Your task to perform on an android device: Open eBay Image 0: 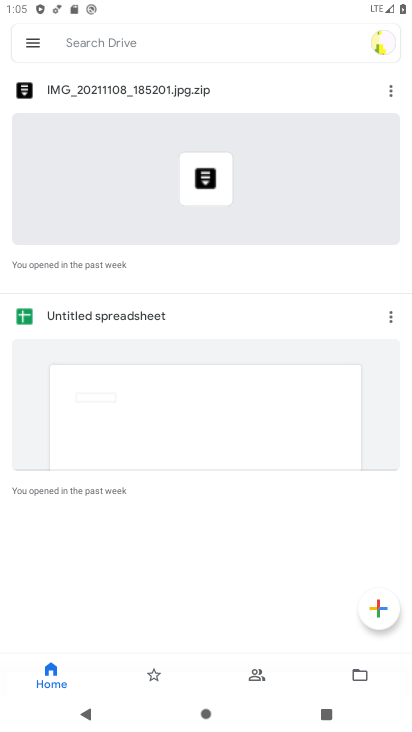
Step 0: press home button
Your task to perform on an android device: Open eBay Image 1: 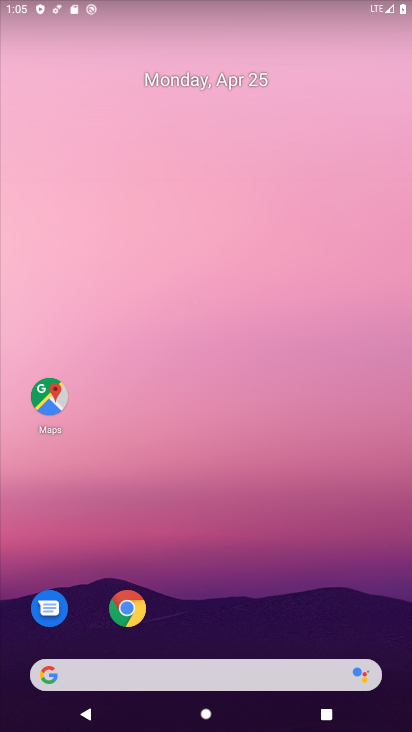
Step 1: drag from (278, 595) to (378, 118)
Your task to perform on an android device: Open eBay Image 2: 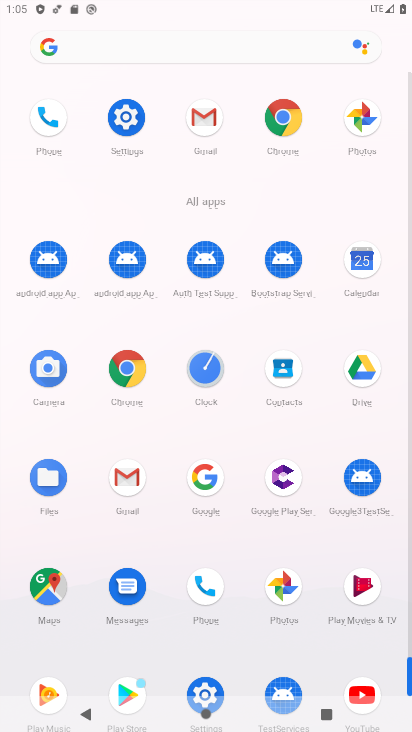
Step 2: click (265, 118)
Your task to perform on an android device: Open eBay Image 3: 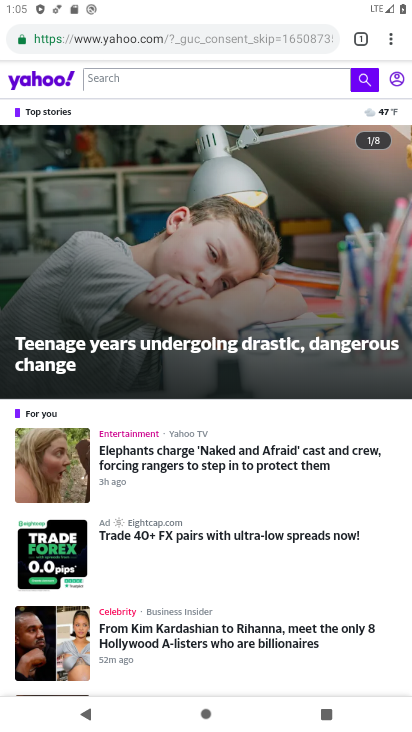
Step 3: click (359, 39)
Your task to perform on an android device: Open eBay Image 4: 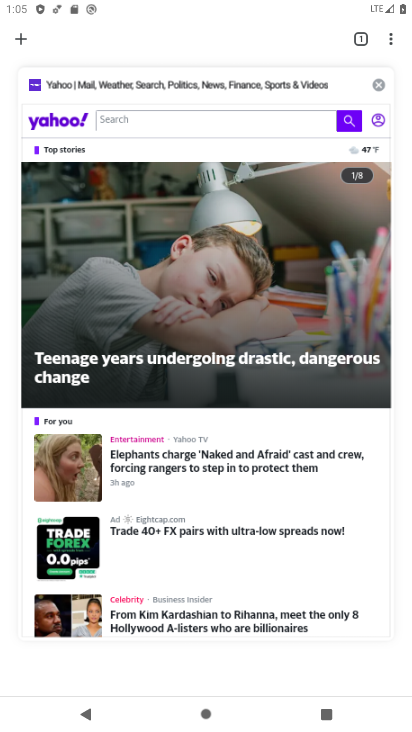
Step 4: click (28, 36)
Your task to perform on an android device: Open eBay Image 5: 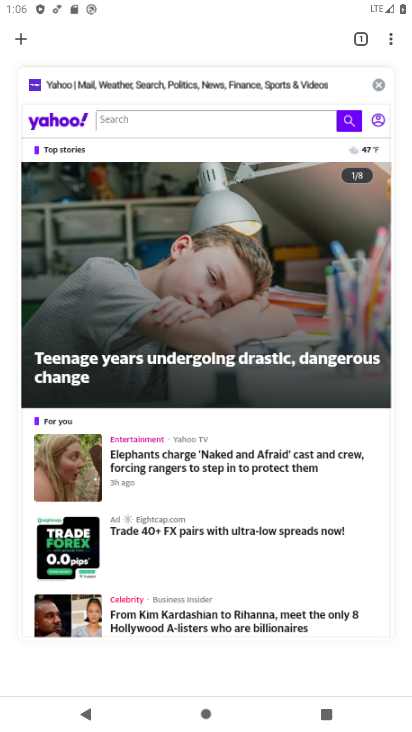
Step 5: click (19, 41)
Your task to perform on an android device: Open eBay Image 6: 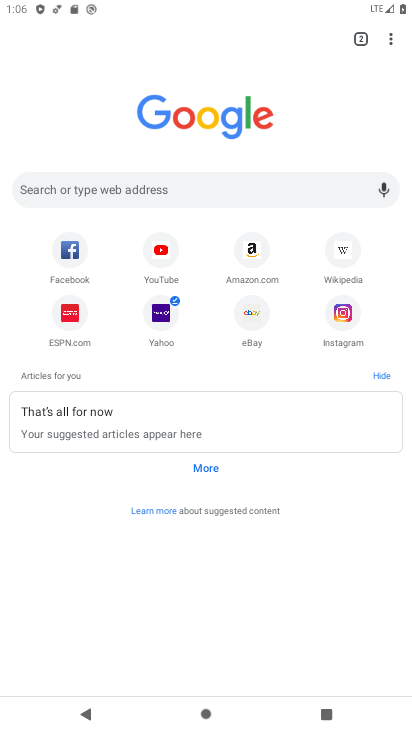
Step 6: click (268, 308)
Your task to perform on an android device: Open eBay Image 7: 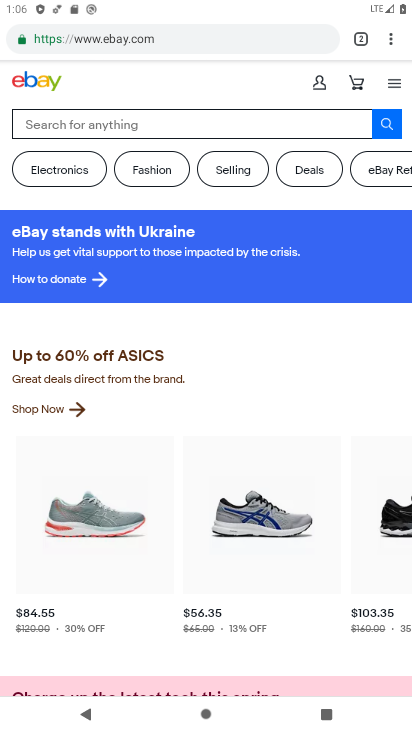
Step 7: task complete